Your task to perform on an android device: turn on data saver in the chrome app Image 0: 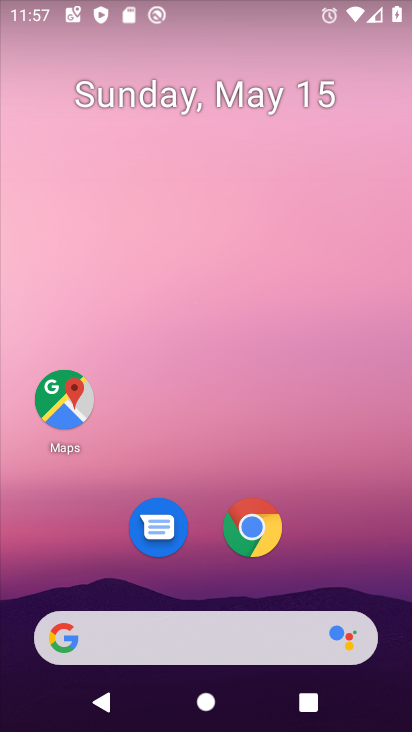
Step 0: drag from (359, 579) to (322, 187)
Your task to perform on an android device: turn on data saver in the chrome app Image 1: 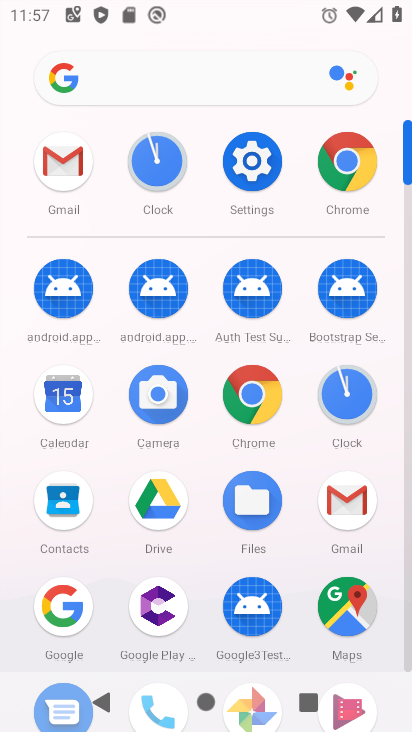
Step 1: click (232, 404)
Your task to perform on an android device: turn on data saver in the chrome app Image 2: 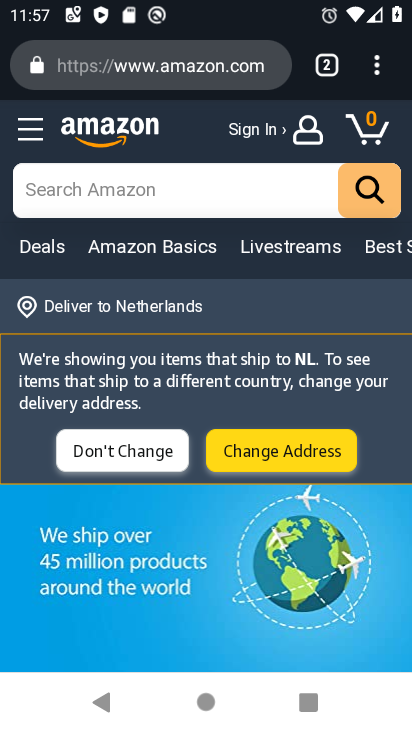
Step 2: click (384, 61)
Your task to perform on an android device: turn on data saver in the chrome app Image 3: 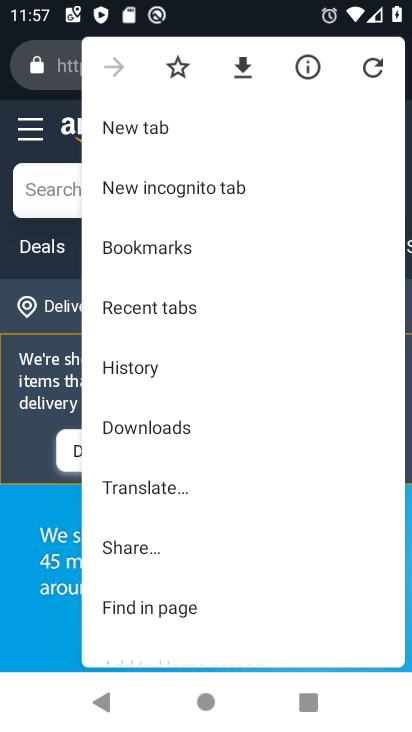
Step 3: drag from (246, 530) to (249, 287)
Your task to perform on an android device: turn on data saver in the chrome app Image 4: 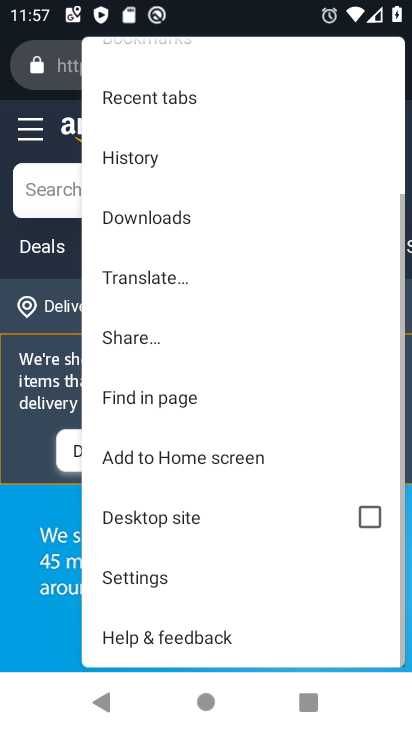
Step 4: click (211, 572)
Your task to perform on an android device: turn on data saver in the chrome app Image 5: 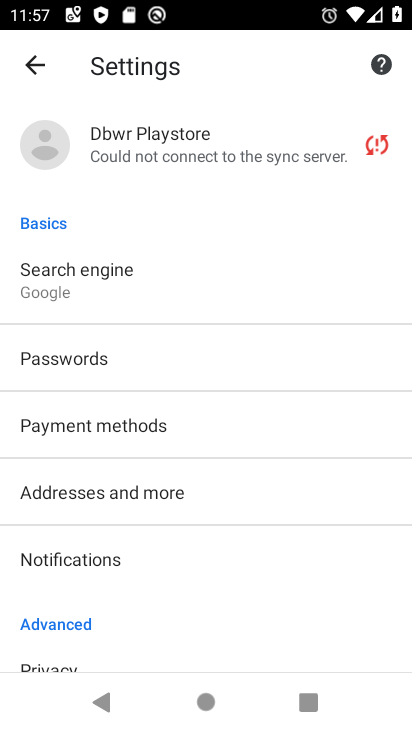
Step 5: drag from (187, 605) to (200, 323)
Your task to perform on an android device: turn on data saver in the chrome app Image 6: 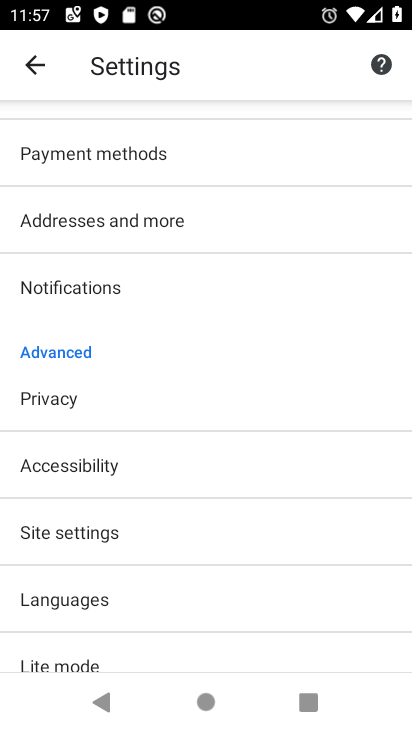
Step 6: click (156, 538)
Your task to perform on an android device: turn on data saver in the chrome app Image 7: 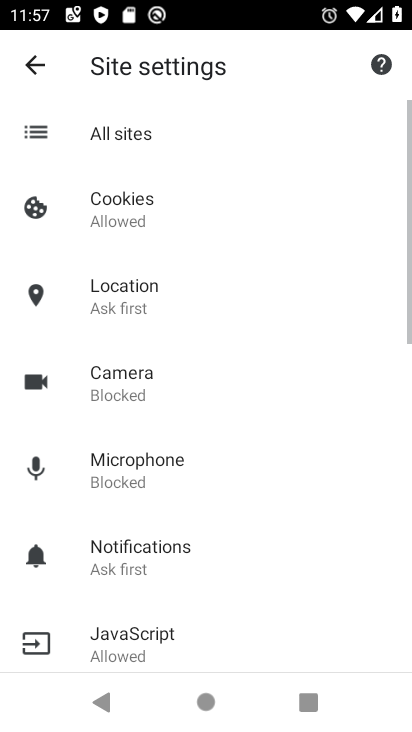
Step 7: drag from (163, 617) to (174, 292)
Your task to perform on an android device: turn on data saver in the chrome app Image 8: 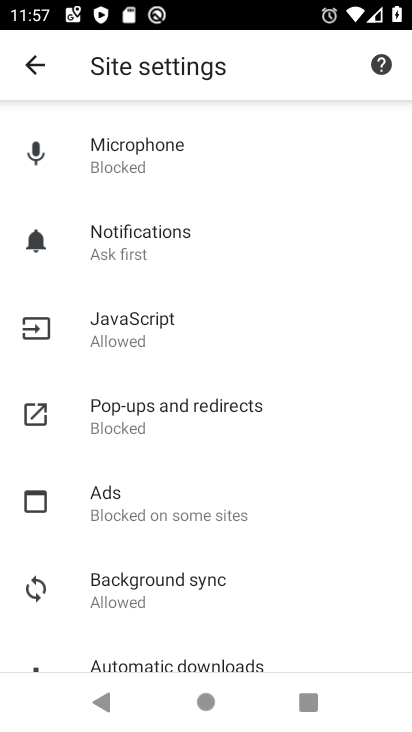
Step 8: click (33, 67)
Your task to perform on an android device: turn on data saver in the chrome app Image 9: 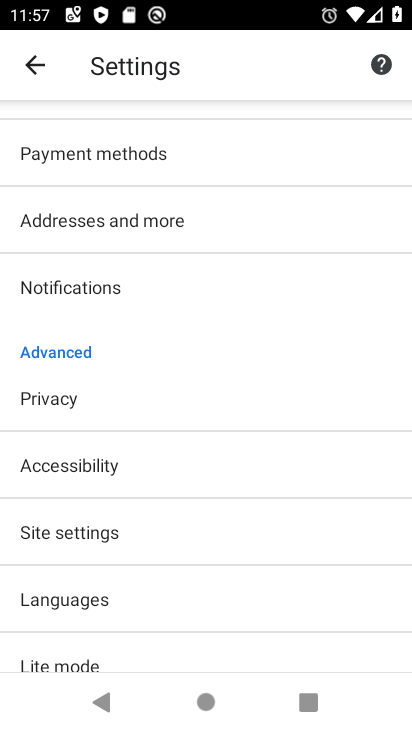
Step 9: click (115, 644)
Your task to perform on an android device: turn on data saver in the chrome app Image 10: 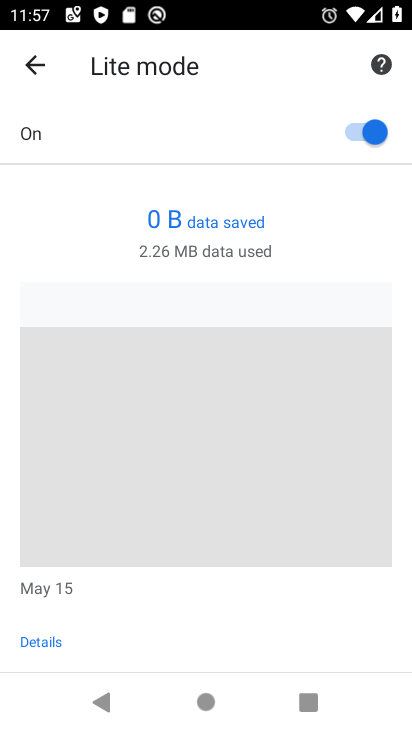
Step 10: click (346, 128)
Your task to perform on an android device: turn on data saver in the chrome app Image 11: 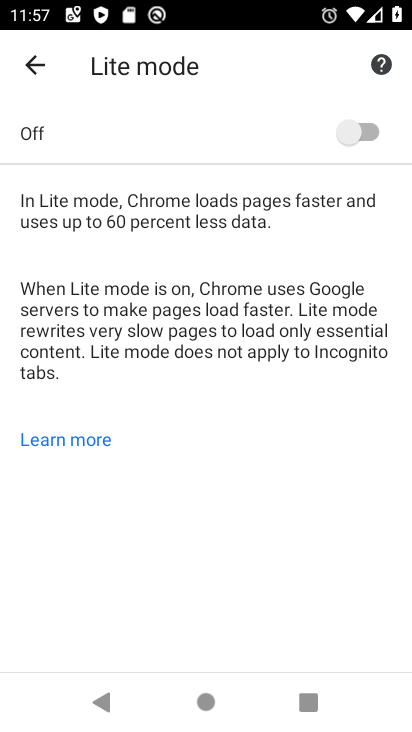
Step 11: click (351, 127)
Your task to perform on an android device: turn on data saver in the chrome app Image 12: 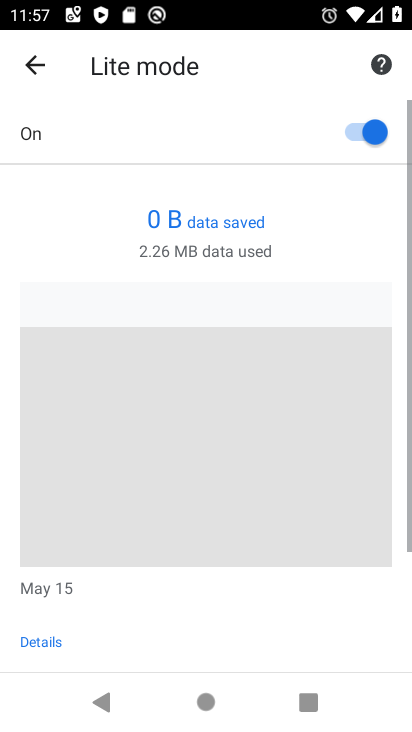
Step 12: task complete